Your task to perform on an android device: Find coffee shops on Maps Image 0: 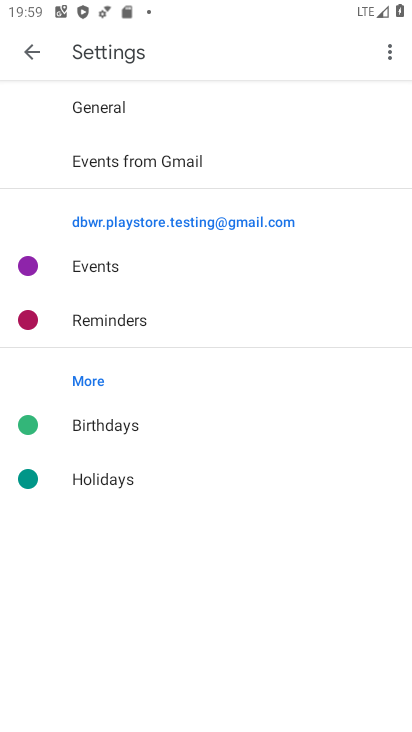
Step 0: drag from (184, 575) to (282, 274)
Your task to perform on an android device: Find coffee shops on Maps Image 1: 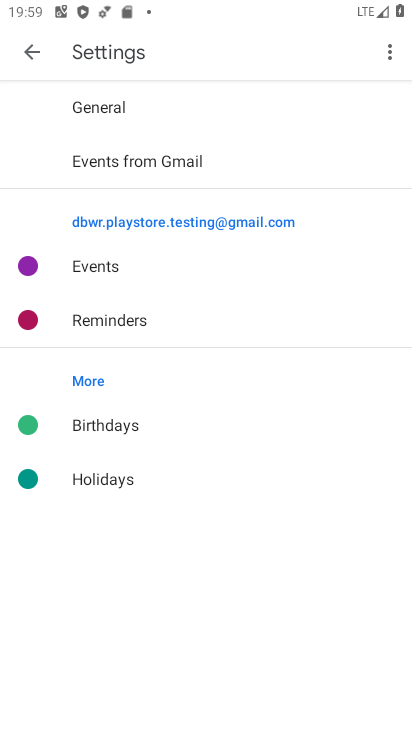
Step 1: drag from (187, 564) to (230, 354)
Your task to perform on an android device: Find coffee shops on Maps Image 2: 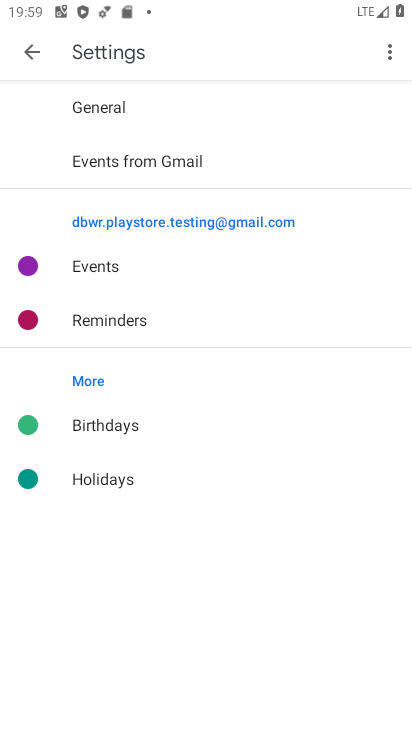
Step 2: press home button
Your task to perform on an android device: Find coffee shops on Maps Image 3: 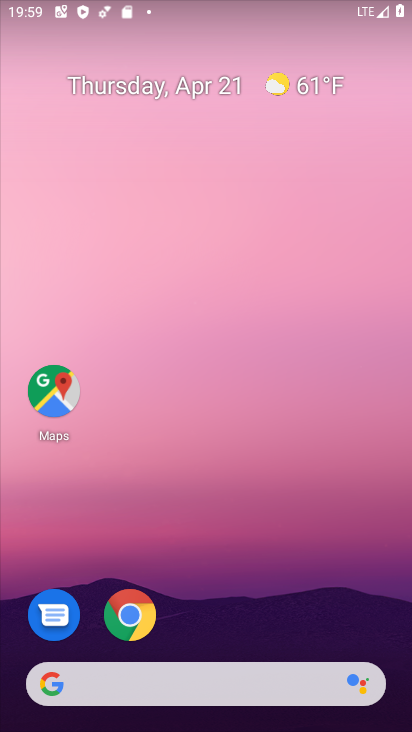
Step 3: drag from (201, 555) to (279, 21)
Your task to perform on an android device: Find coffee shops on Maps Image 4: 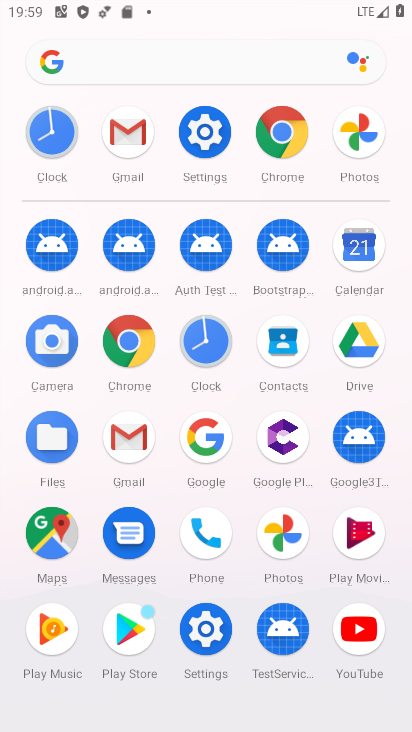
Step 4: drag from (174, 669) to (255, 69)
Your task to perform on an android device: Find coffee shops on Maps Image 5: 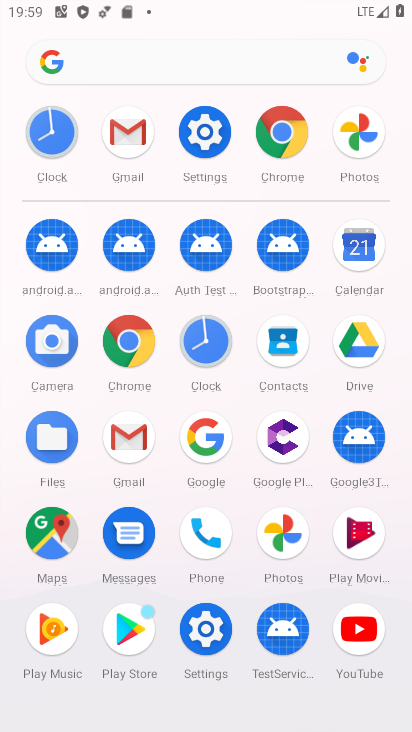
Step 5: click (49, 532)
Your task to perform on an android device: Find coffee shops on Maps Image 6: 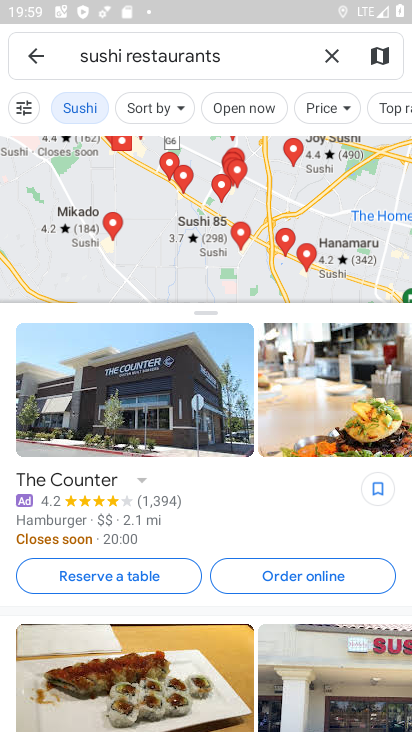
Step 6: drag from (141, 645) to (241, 169)
Your task to perform on an android device: Find coffee shops on Maps Image 7: 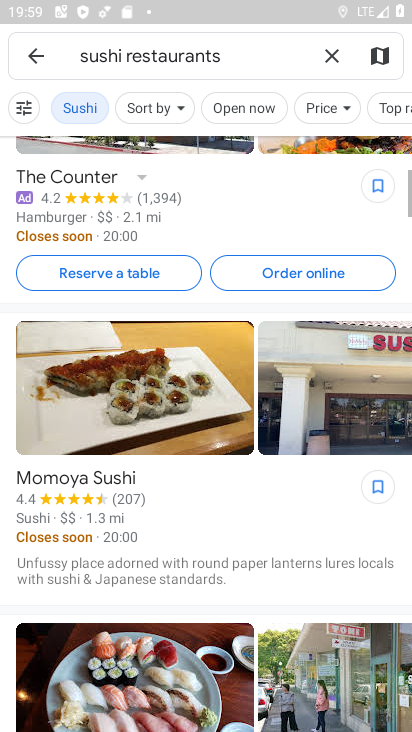
Step 7: drag from (186, 448) to (255, 149)
Your task to perform on an android device: Find coffee shops on Maps Image 8: 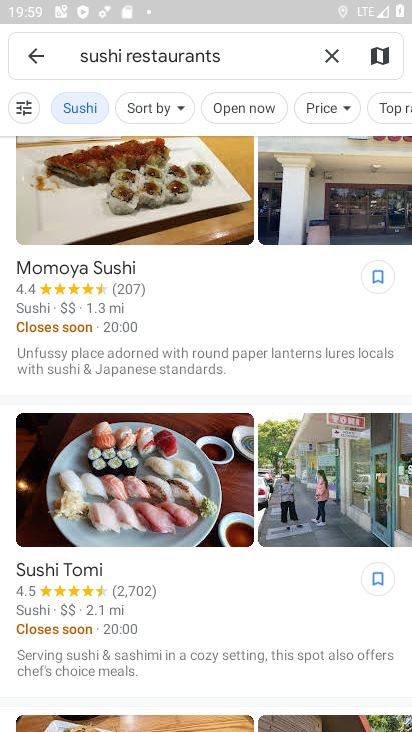
Step 8: drag from (97, 578) to (214, 171)
Your task to perform on an android device: Find coffee shops on Maps Image 9: 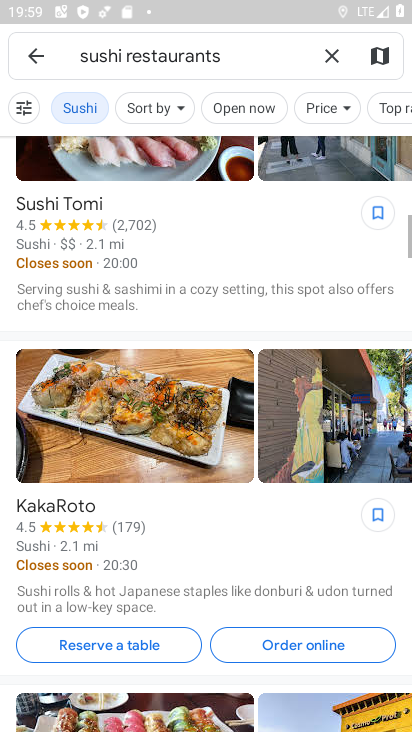
Step 9: drag from (349, 554) to (87, 565)
Your task to perform on an android device: Find coffee shops on Maps Image 10: 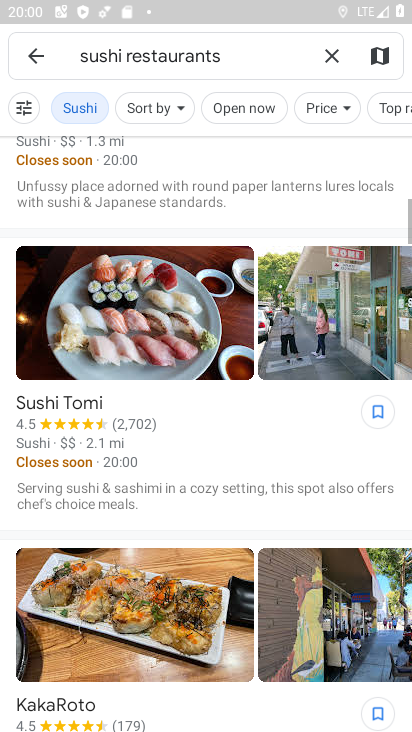
Step 10: drag from (132, 582) to (326, 51)
Your task to perform on an android device: Find coffee shops on Maps Image 11: 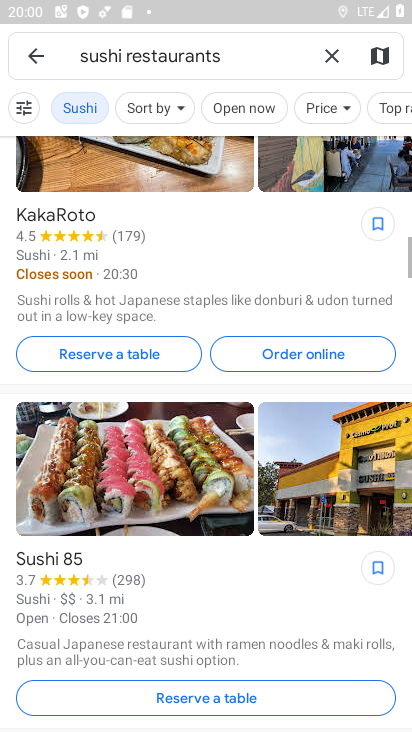
Step 11: drag from (321, 597) to (210, 195)
Your task to perform on an android device: Find coffee shops on Maps Image 12: 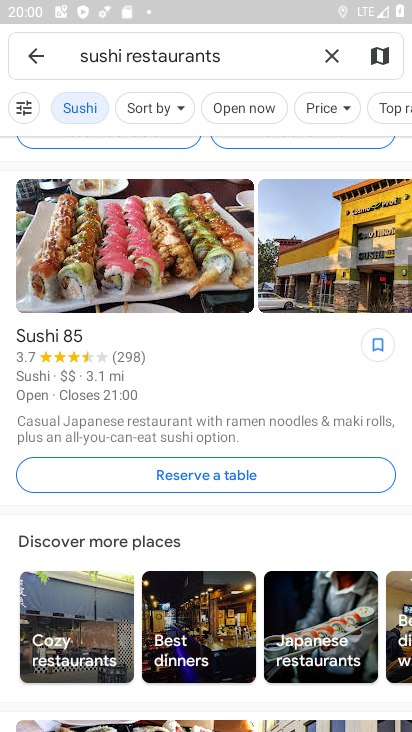
Step 12: click (333, 63)
Your task to perform on an android device: Find coffee shops on Maps Image 13: 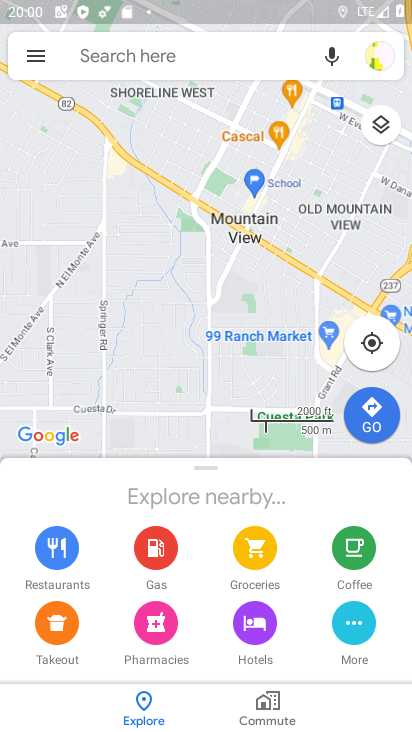
Step 13: click (213, 53)
Your task to perform on an android device: Find coffee shops on Maps Image 14: 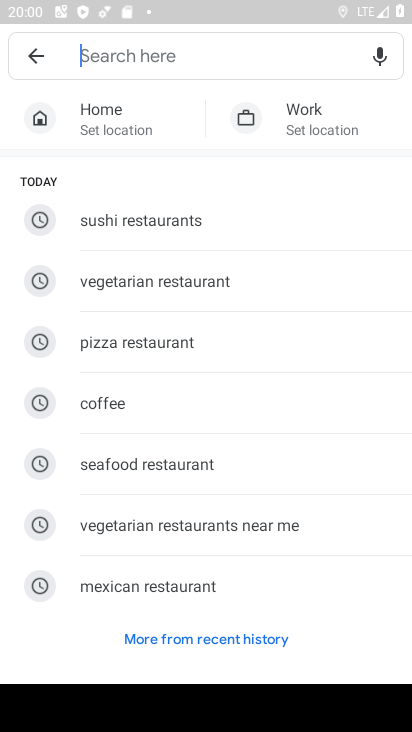
Step 14: type "coffee"
Your task to perform on an android device: Find coffee shops on Maps Image 15: 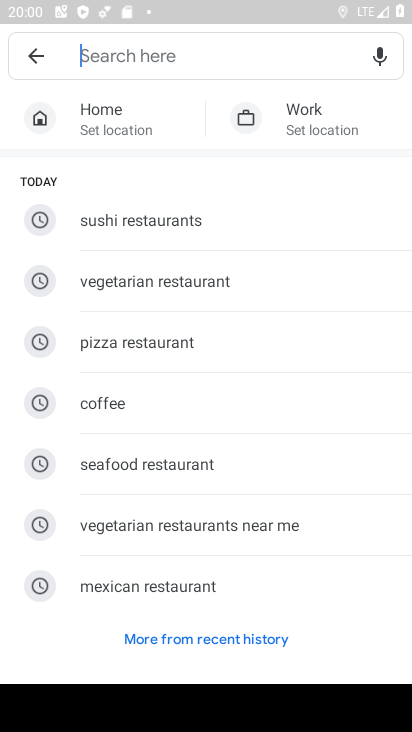
Step 15: click (114, 406)
Your task to perform on an android device: Find coffee shops on Maps Image 16: 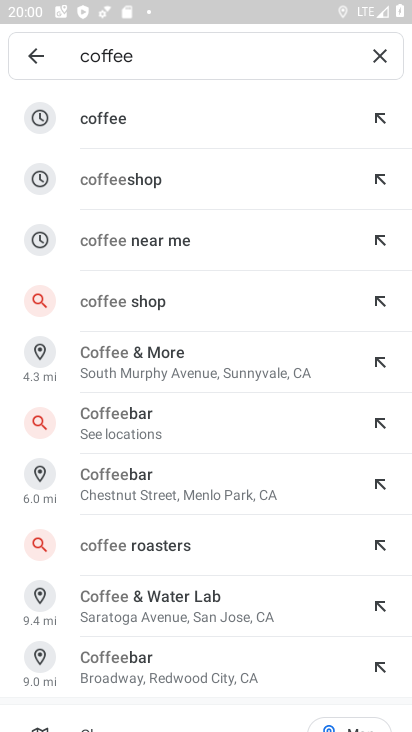
Step 16: click (154, 134)
Your task to perform on an android device: Find coffee shops on Maps Image 17: 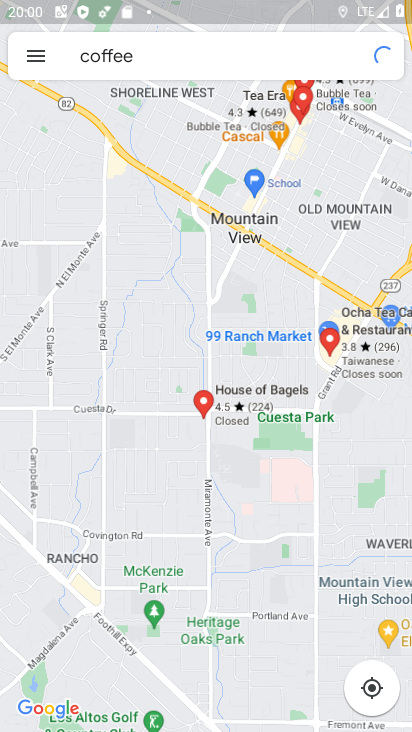
Step 17: task complete